Your task to perform on an android device: When is my next meeting? Image 0: 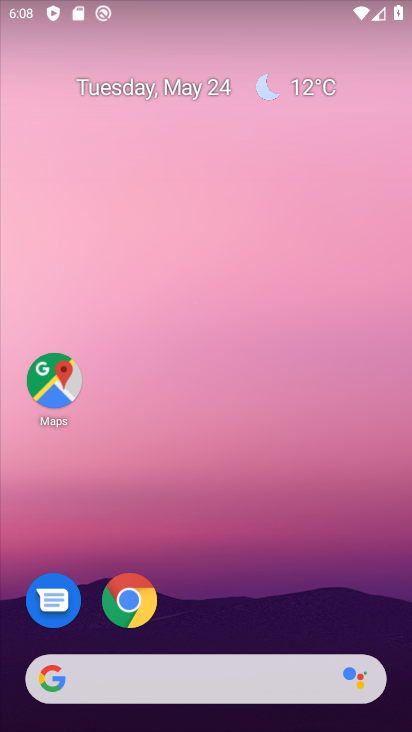
Step 0: drag from (298, 671) to (404, 94)
Your task to perform on an android device: When is my next meeting? Image 1: 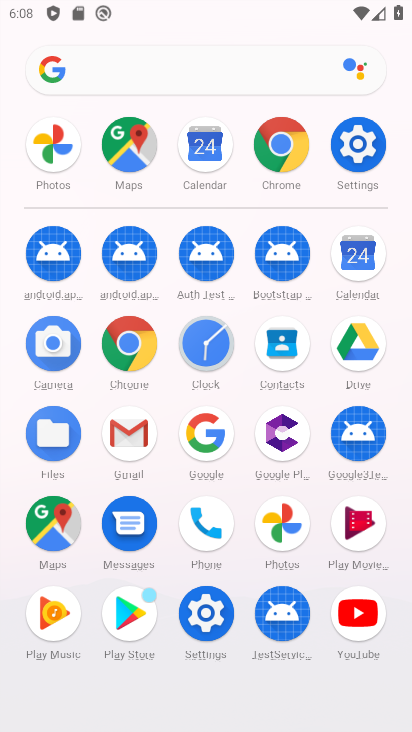
Step 1: click (354, 263)
Your task to perform on an android device: When is my next meeting? Image 2: 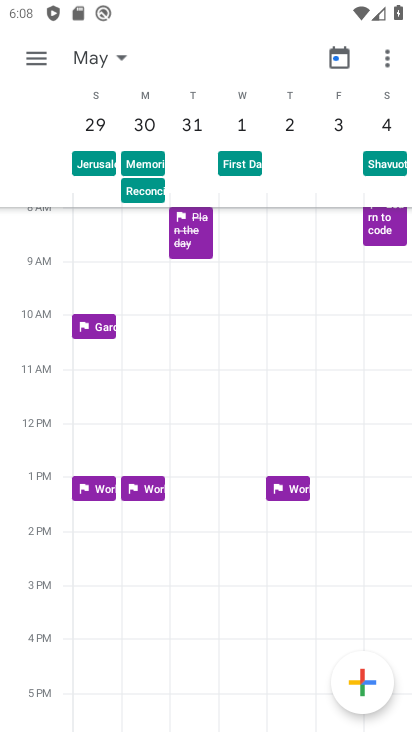
Step 2: click (115, 58)
Your task to perform on an android device: When is my next meeting? Image 3: 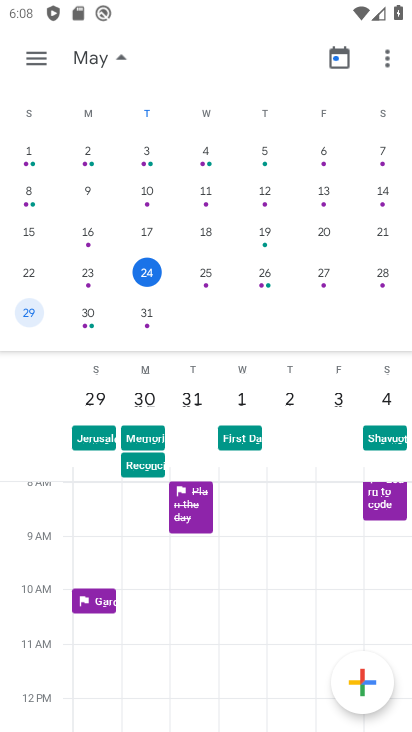
Step 3: click (212, 277)
Your task to perform on an android device: When is my next meeting? Image 4: 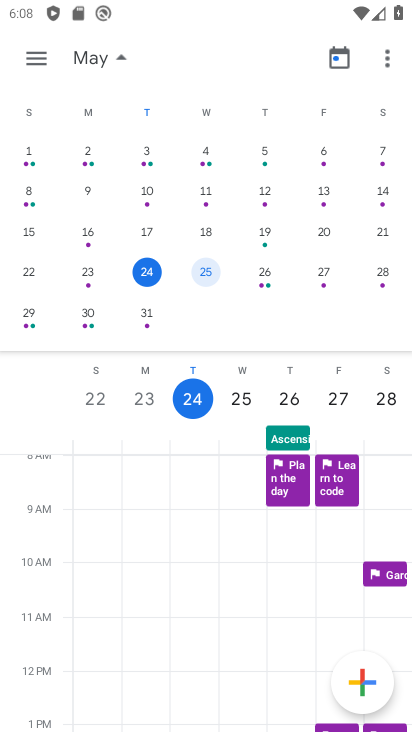
Step 4: task complete